Your task to perform on an android device: Open calendar and show me the third week of next month Image 0: 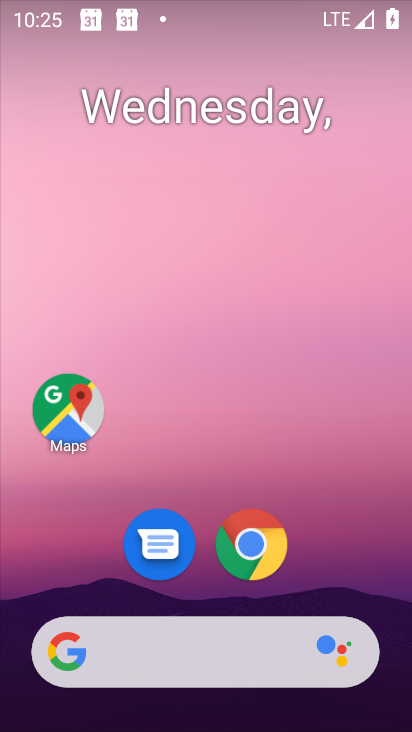
Step 0: drag from (318, 544) to (314, 49)
Your task to perform on an android device: Open calendar and show me the third week of next month Image 1: 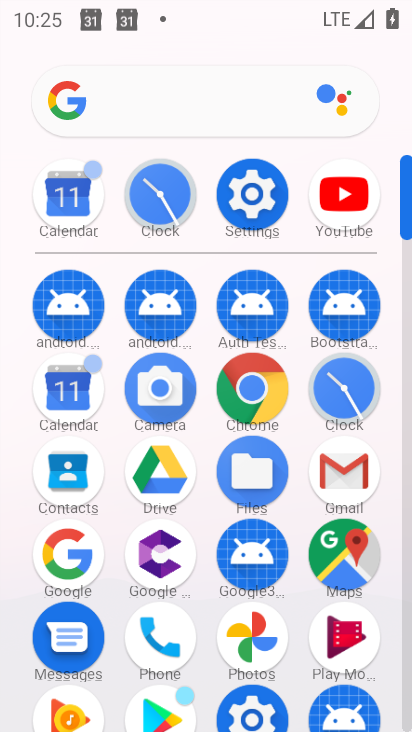
Step 1: click (60, 408)
Your task to perform on an android device: Open calendar and show me the third week of next month Image 2: 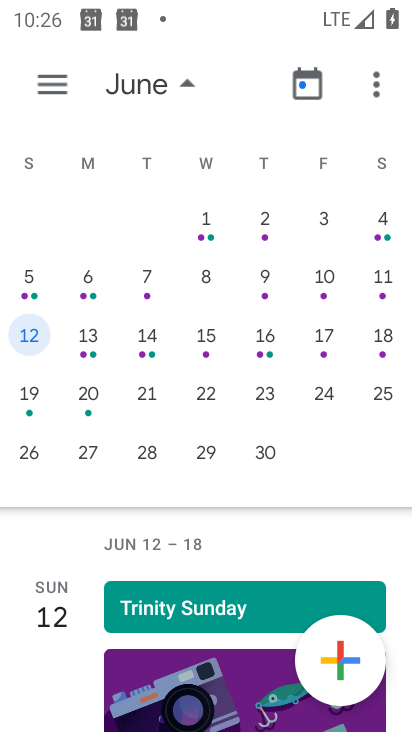
Step 2: task complete